Your task to perform on an android device: find snoozed emails in the gmail app Image 0: 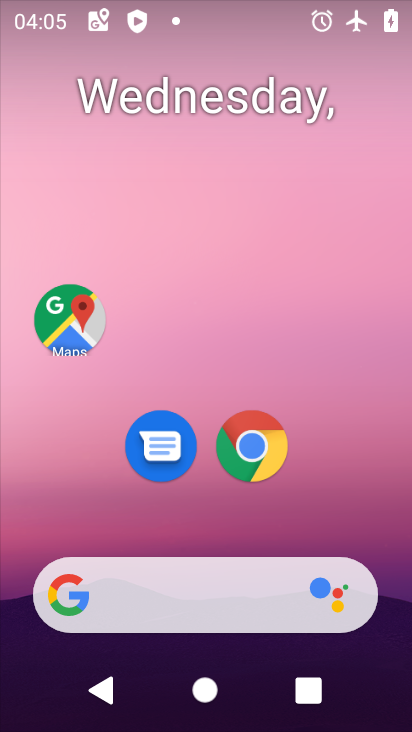
Step 0: drag from (195, 532) to (217, 150)
Your task to perform on an android device: find snoozed emails in the gmail app Image 1: 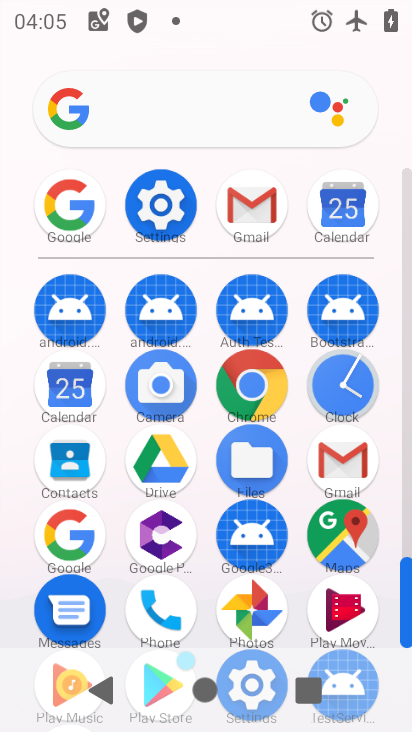
Step 1: click (326, 462)
Your task to perform on an android device: find snoozed emails in the gmail app Image 2: 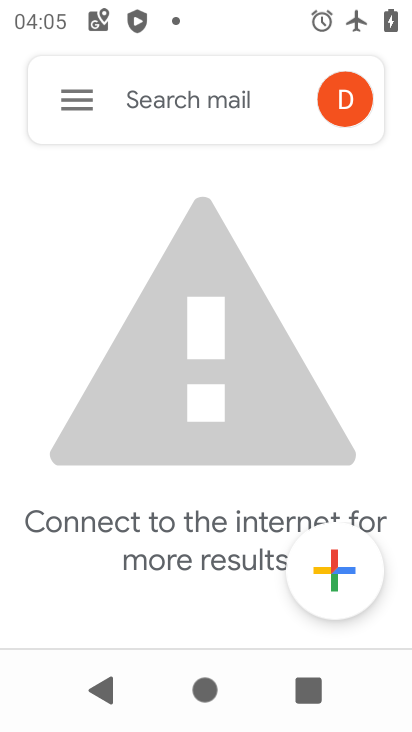
Step 2: click (84, 108)
Your task to perform on an android device: find snoozed emails in the gmail app Image 3: 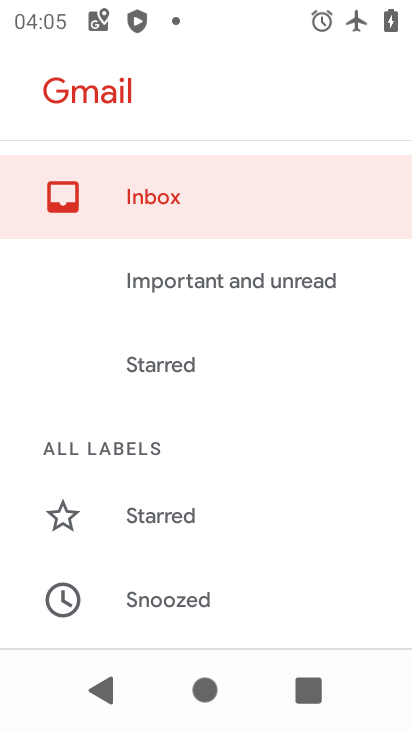
Step 3: click (212, 599)
Your task to perform on an android device: find snoozed emails in the gmail app Image 4: 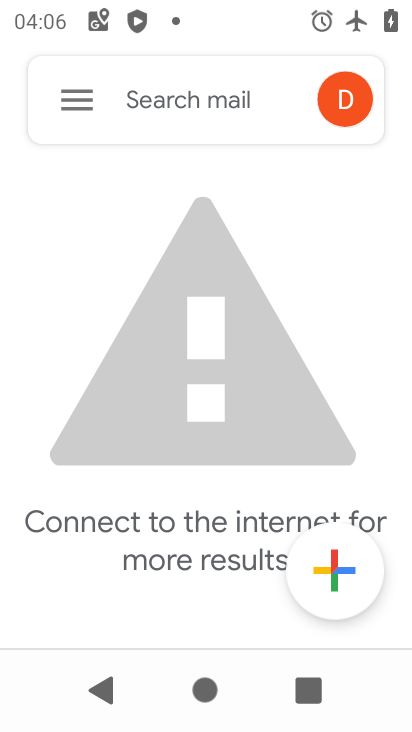
Step 4: task complete